Your task to perform on an android device: Go to sound settings Image 0: 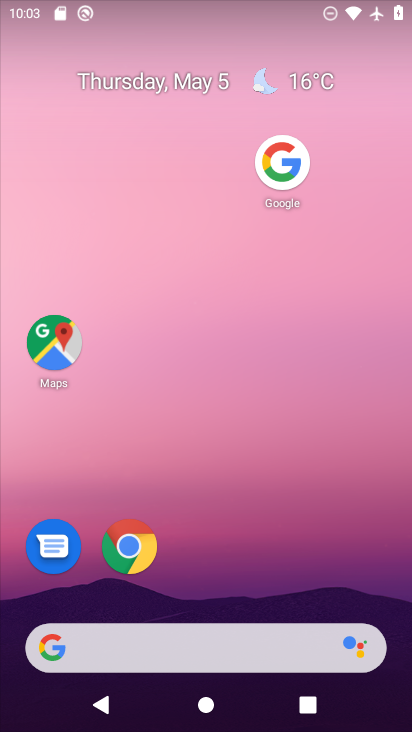
Step 0: drag from (158, 644) to (311, 58)
Your task to perform on an android device: Go to sound settings Image 1: 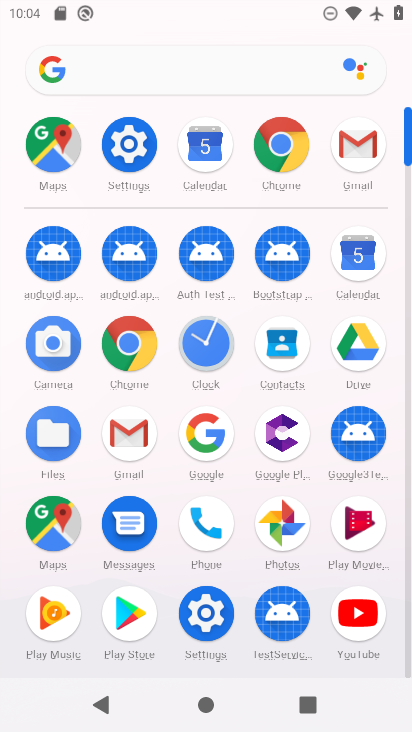
Step 1: click (119, 155)
Your task to perform on an android device: Go to sound settings Image 2: 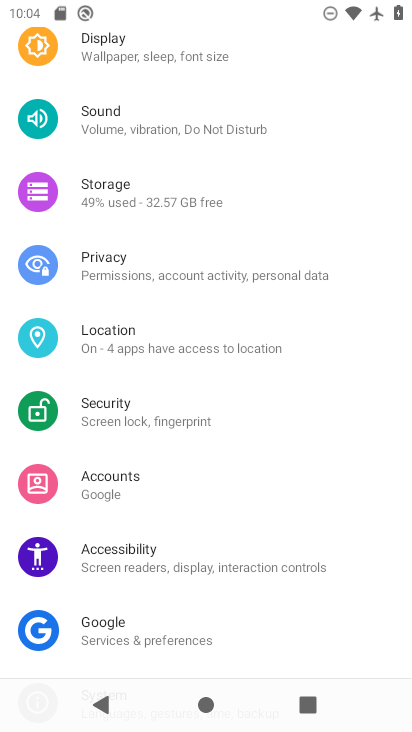
Step 2: click (166, 125)
Your task to perform on an android device: Go to sound settings Image 3: 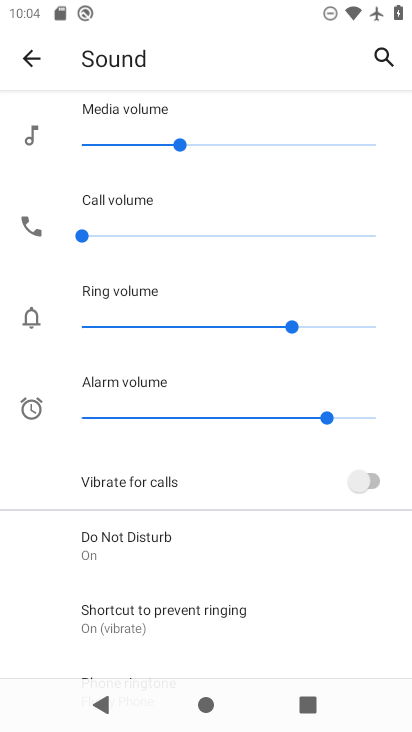
Step 3: task complete